Your task to perform on an android device: turn on location history Image 0: 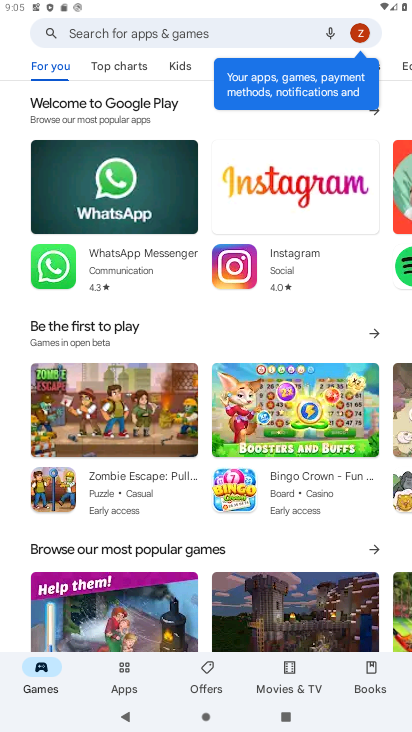
Step 0: press home button
Your task to perform on an android device: turn on location history Image 1: 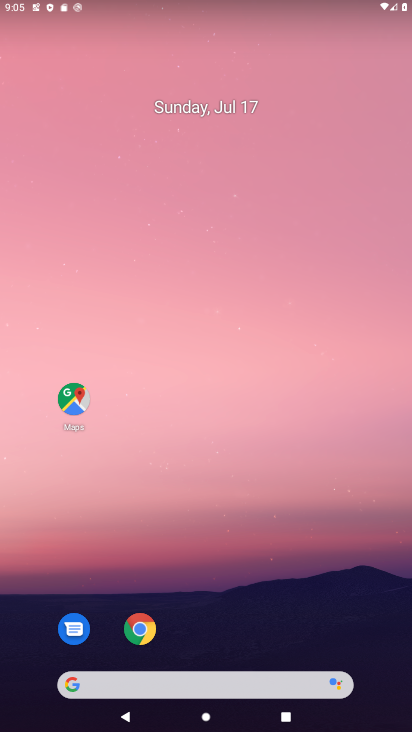
Step 1: drag from (206, 575) to (267, 3)
Your task to perform on an android device: turn on location history Image 2: 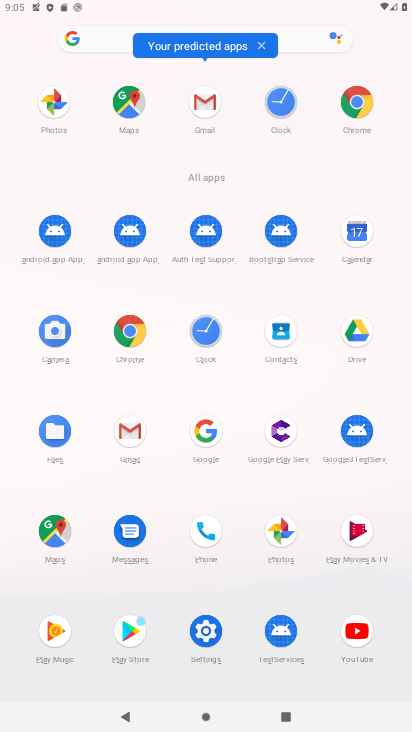
Step 2: click (202, 634)
Your task to perform on an android device: turn on location history Image 3: 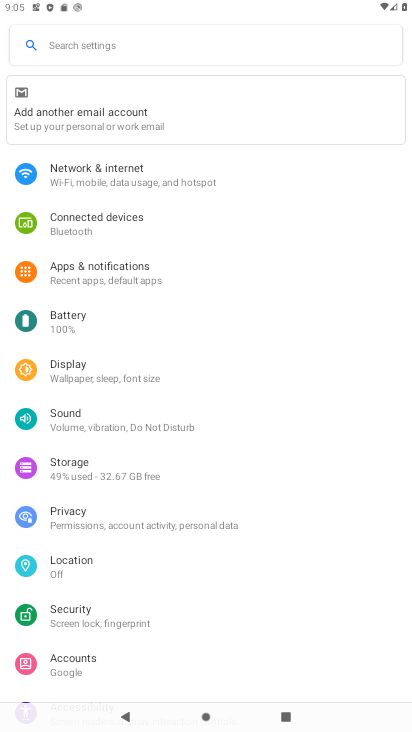
Step 3: click (90, 572)
Your task to perform on an android device: turn on location history Image 4: 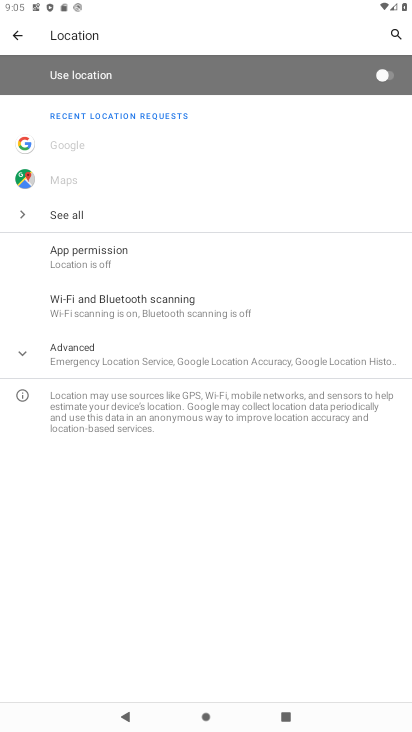
Step 4: click (108, 356)
Your task to perform on an android device: turn on location history Image 5: 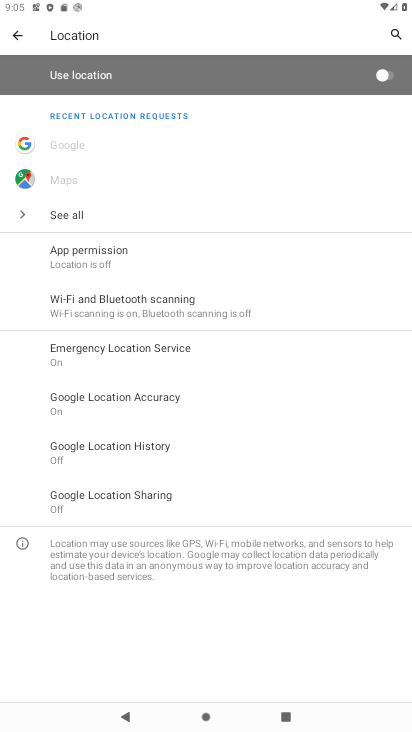
Step 5: click (90, 460)
Your task to perform on an android device: turn on location history Image 6: 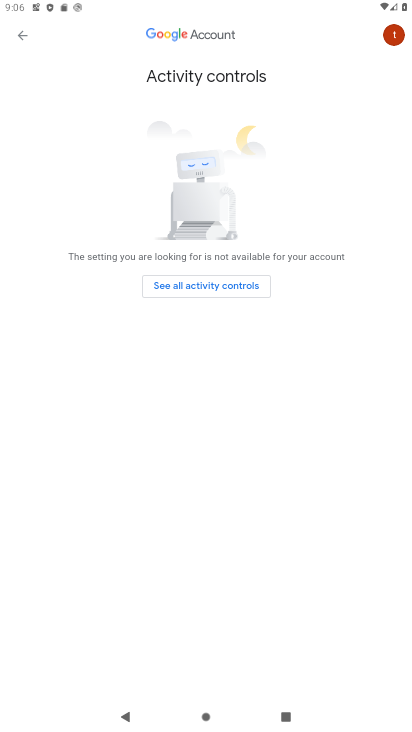
Step 6: click (236, 276)
Your task to perform on an android device: turn on location history Image 7: 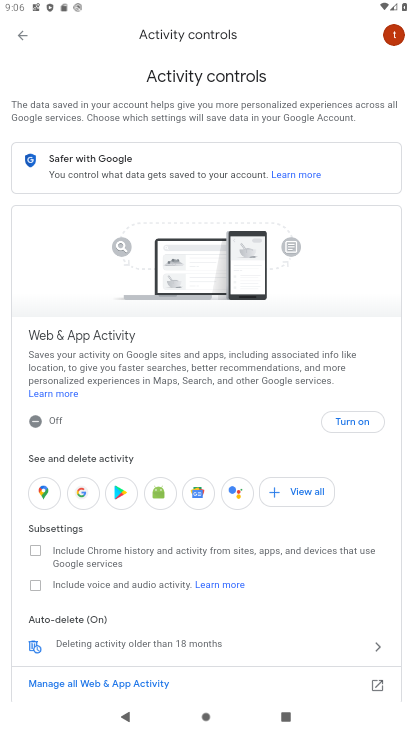
Step 7: click (353, 422)
Your task to perform on an android device: turn on location history Image 8: 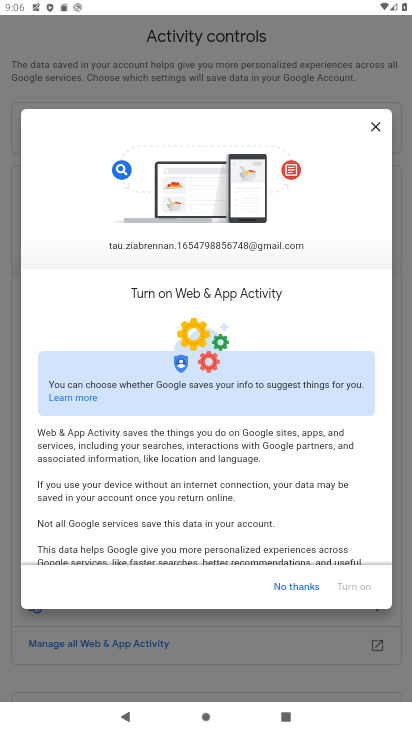
Step 8: drag from (316, 549) to (319, 189)
Your task to perform on an android device: turn on location history Image 9: 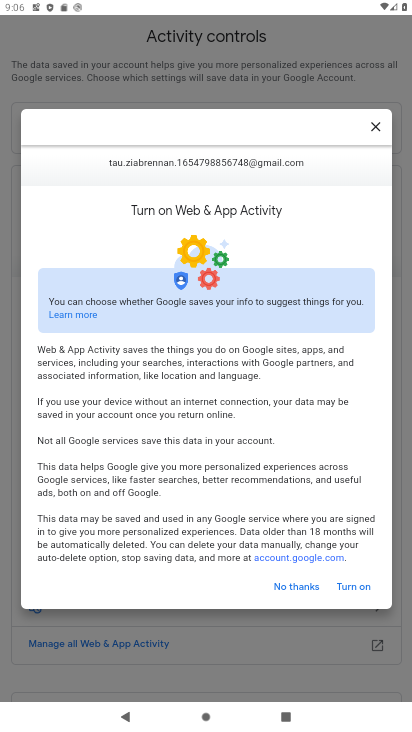
Step 9: click (356, 588)
Your task to perform on an android device: turn on location history Image 10: 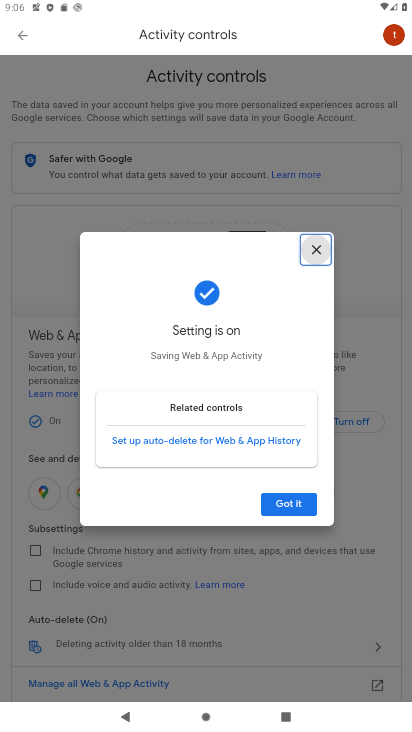
Step 10: click (283, 494)
Your task to perform on an android device: turn on location history Image 11: 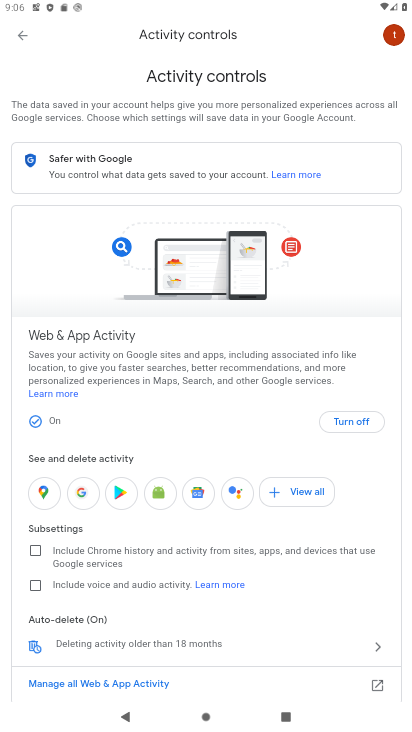
Step 11: task complete